Your task to perform on an android device: Show me productivity apps on the Play Store Image 0: 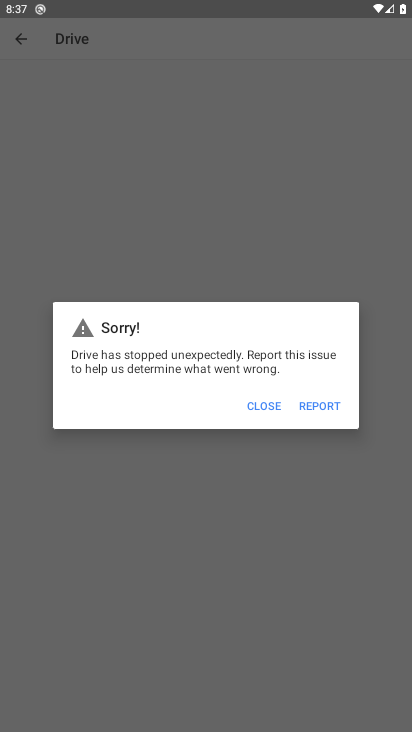
Step 0: press home button
Your task to perform on an android device: Show me productivity apps on the Play Store Image 1: 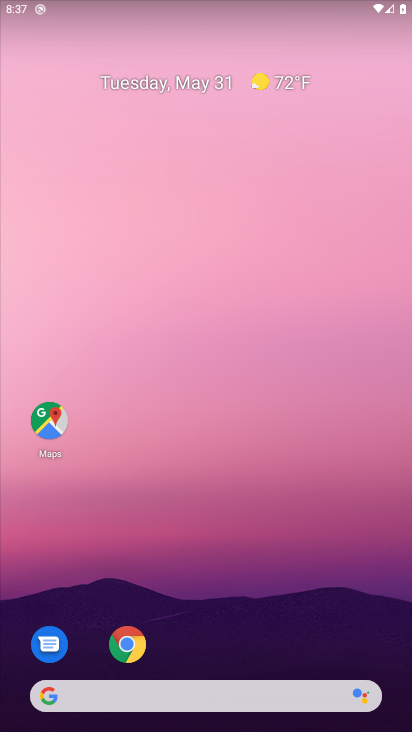
Step 1: drag from (205, 656) to (233, 26)
Your task to perform on an android device: Show me productivity apps on the Play Store Image 2: 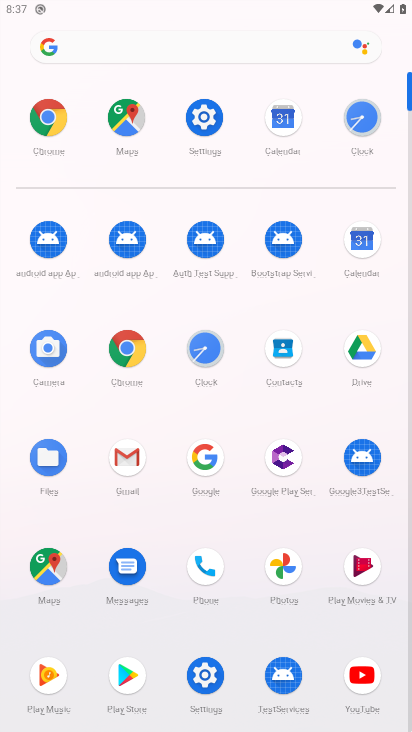
Step 2: click (123, 675)
Your task to perform on an android device: Show me productivity apps on the Play Store Image 3: 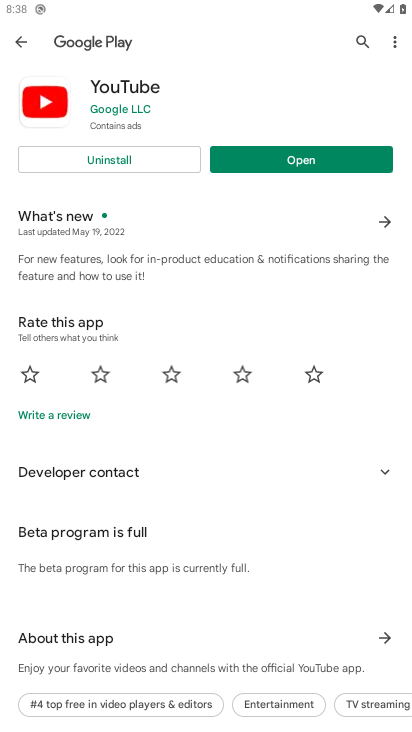
Step 3: press back button
Your task to perform on an android device: Show me productivity apps on the Play Store Image 4: 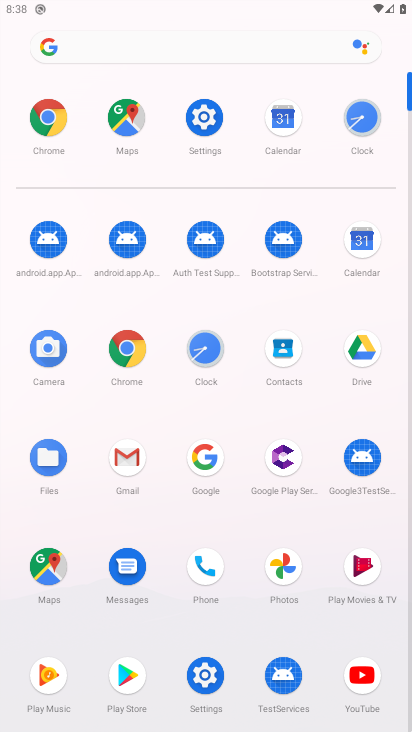
Step 4: click (122, 664)
Your task to perform on an android device: Show me productivity apps on the Play Store Image 5: 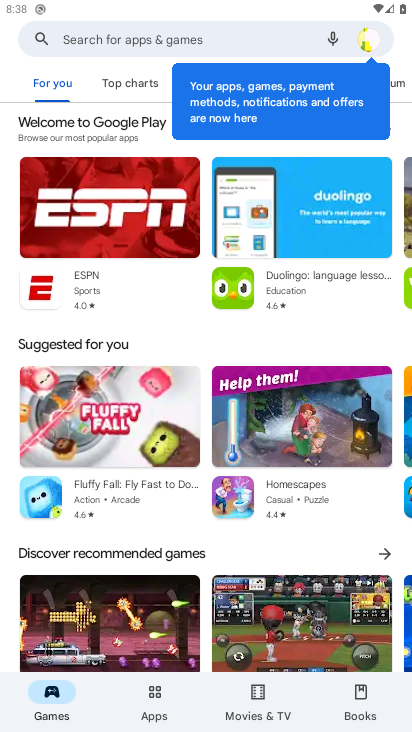
Step 5: click (155, 692)
Your task to perform on an android device: Show me productivity apps on the Play Store Image 6: 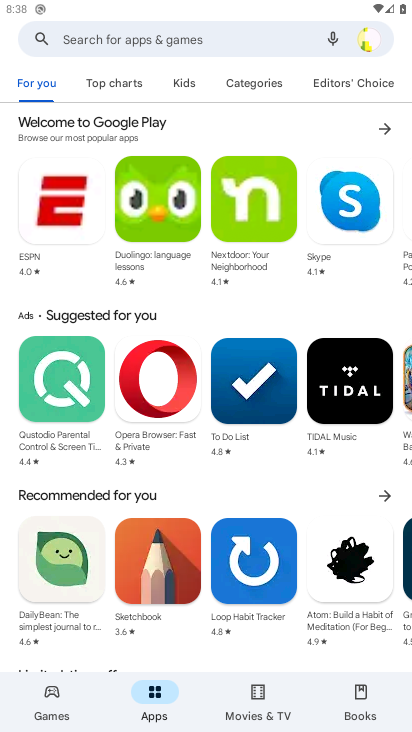
Step 6: click (257, 85)
Your task to perform on an android device: Show me productivity apps on the Play Store Image 7: 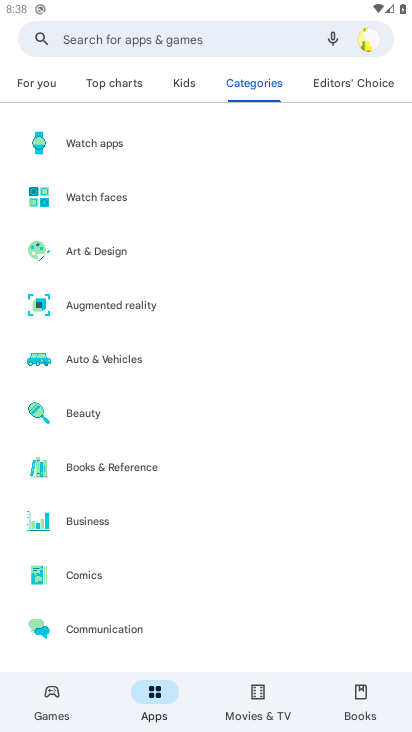
Step 7: drag from (160, 636) to (160, 56)
Your task to perform on an android device: Show me productivity apps on the Play Store Image 8: 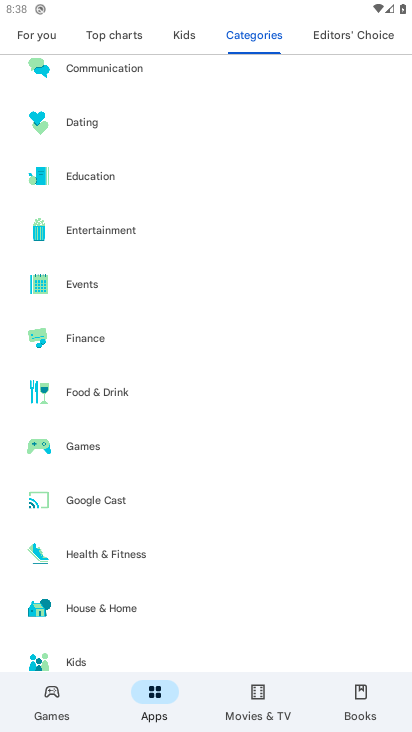
Step 8: drag from (152, 633) to (145, 70)
Your task to perform on an android device: Show me productivity apps on the Play Store Image 9: 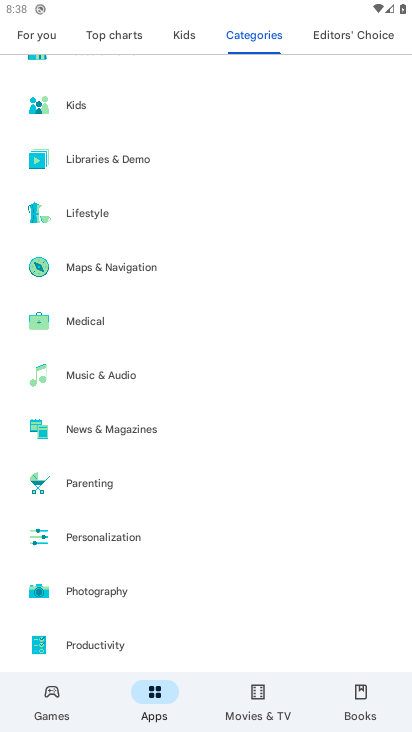
Step 9: click (140, 639)
Your task to perform on an android device: Show me productivity apps on the Play Store Image 10: 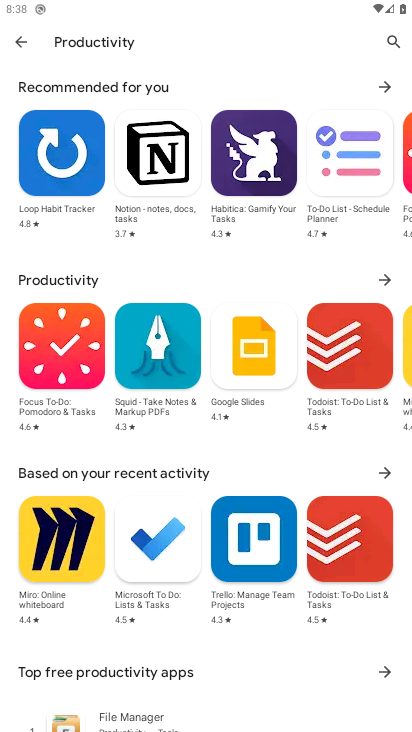
Step 10: task complete